Your task to perform on an android device: Go to Google maps Image 0: 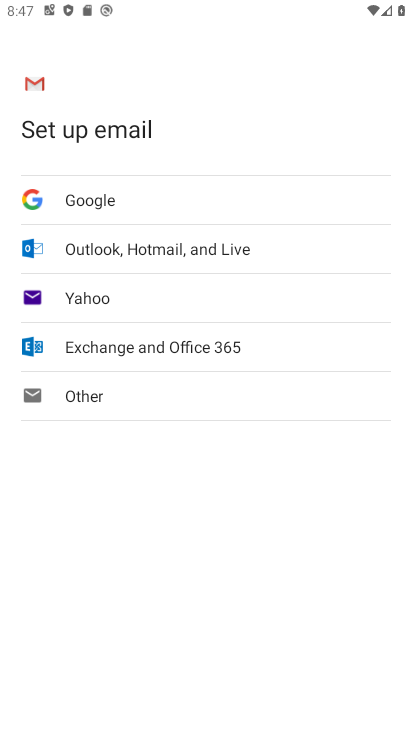
Step 0: press home button
Your task to perform on an android device: Go to Google maps Image 1: 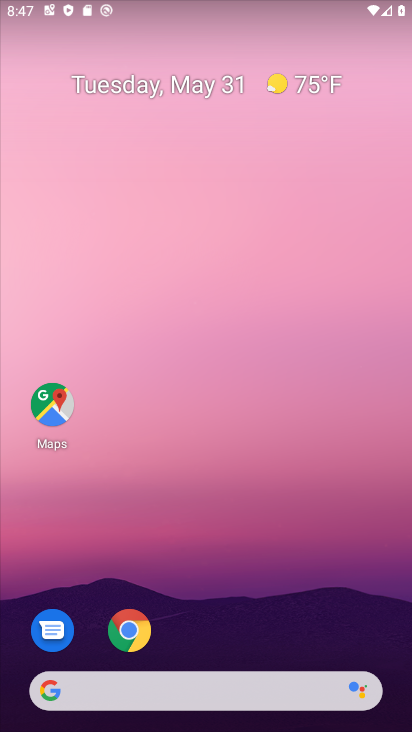
Step 1: drag from (258, 596) to (321, 83)
Your task to perform on an android device: Go to Google maps Image 2: 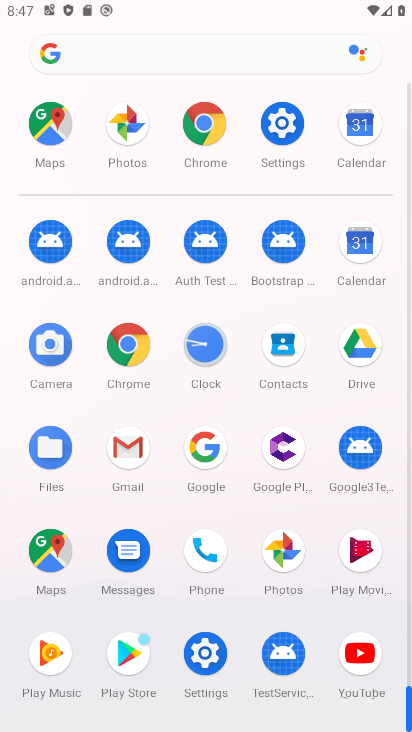
Step 2: click (42, 563)
Your task to perform on an android device: Go to Google maps Image 3: 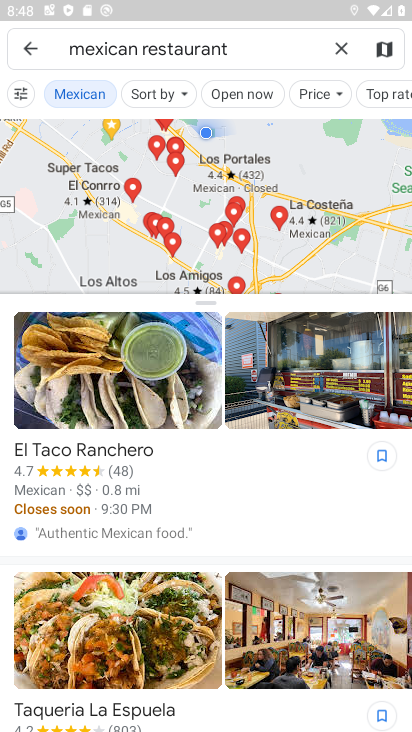
Step 3: task complete